Your task to perform on an android device: Search for "macbook pro" on newegg.com, select the first entry, add it to the cart, then select checkout. Image 0: 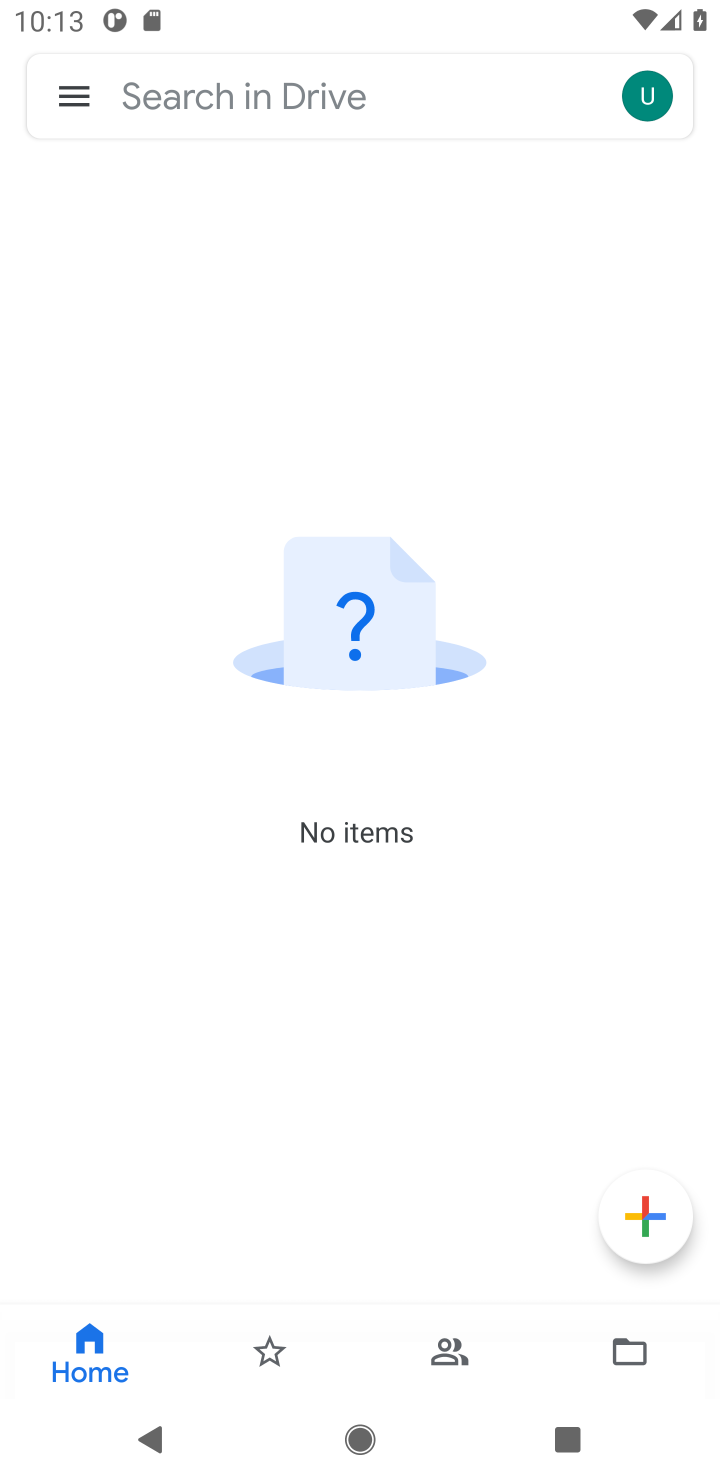
Step 0: task complete